Your task to perform on an android device: check battery use Image 0: 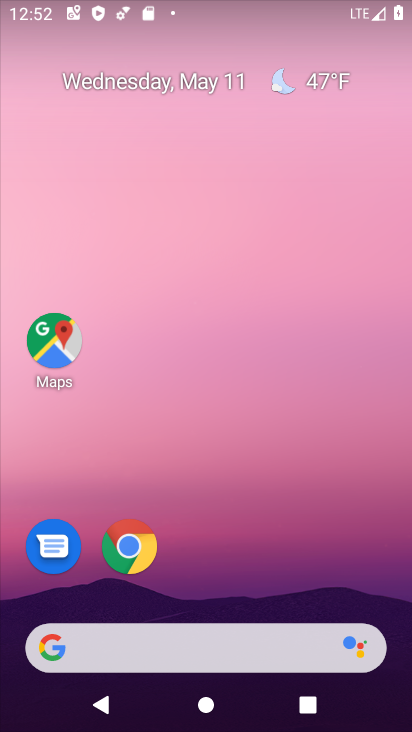
Step 0: drag from (224, 595) to (362, 4)
Your task to perform on an android device: check battery use Image 1: 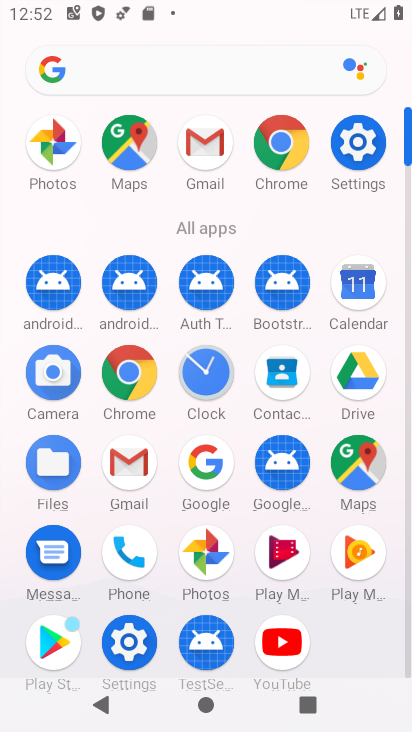
Step 1: click (120, 640)
Your task to perform on an android device: check battery use Image 2: 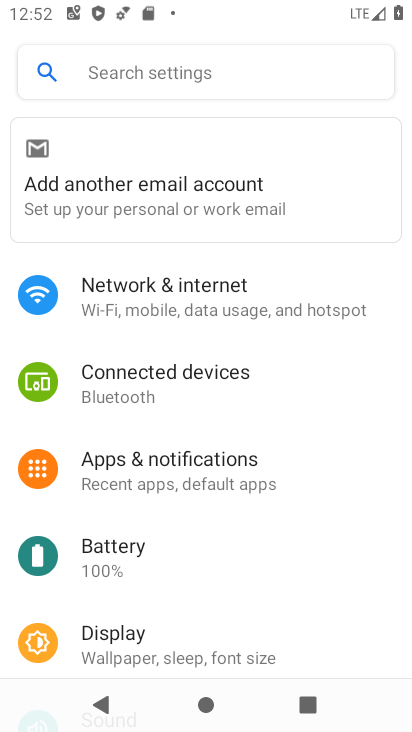
Step 2: click (185, 564)
Your task to perform on an android device: check battery use Image 3: 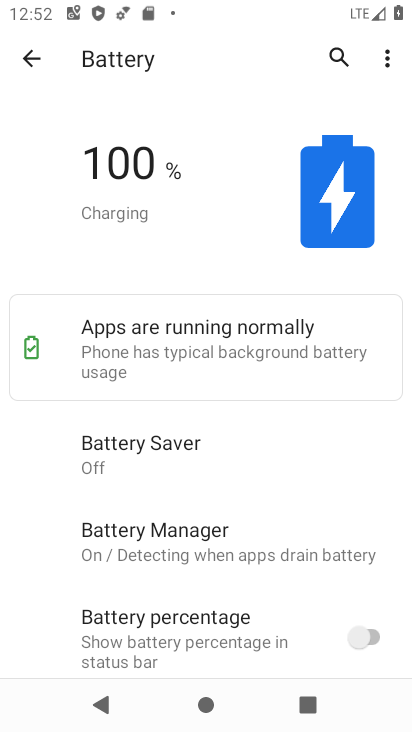
Step 3: drag from (390, 62) to (378, 109)
Your task to perform on an android device: check battery use Image 4: 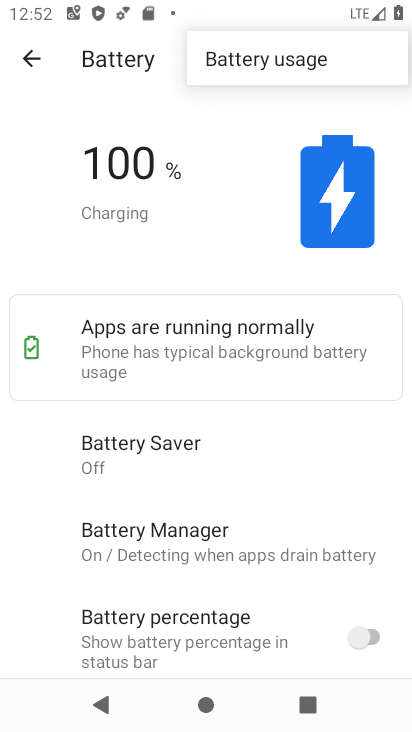
Step 4: click (390, 60)
Your task to perform on an android device: check battery use Image 5: 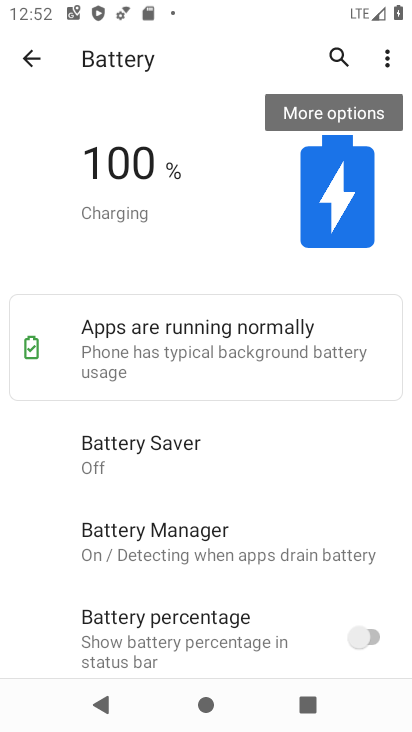
Step 5: click (393, 56)
Your task to perform on an android device: check battery use Image 6: 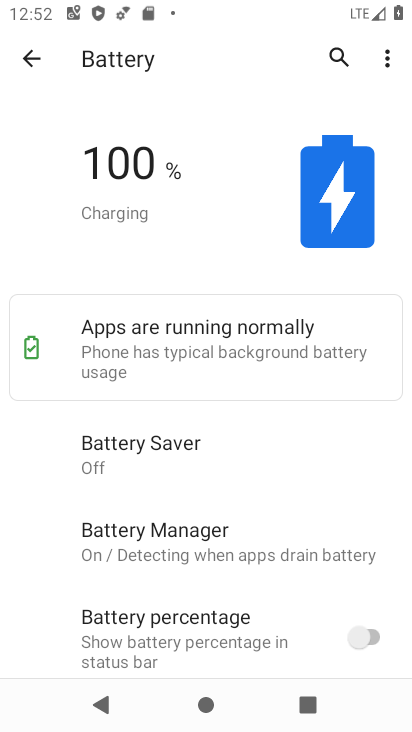
Step 6: click (361, 121)
Your task to perform on an android device: check battery use Image 7: 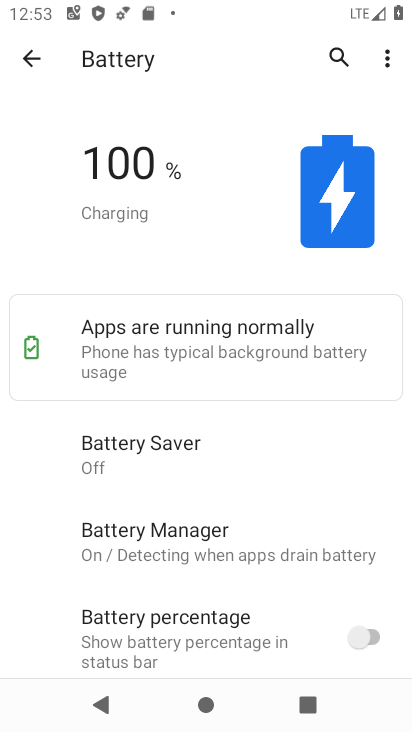
Step 7: click (387, 63)
Your task to perform on an android device: check battery use Image 8: 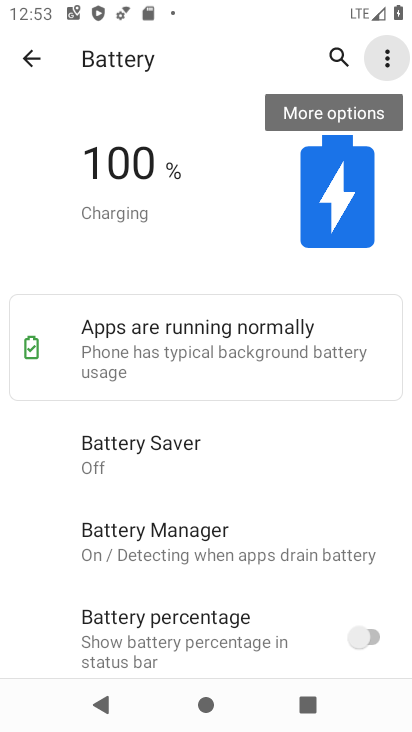
Step 8: click (390, 39)
Your task to perform on an android device: check battery use Image 9: 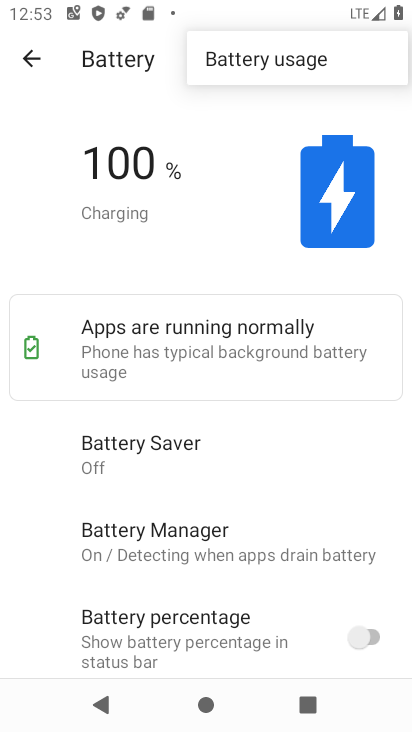
Step 9: click (376, 58)
Your task to perform on an android device: check battery use Image 10: 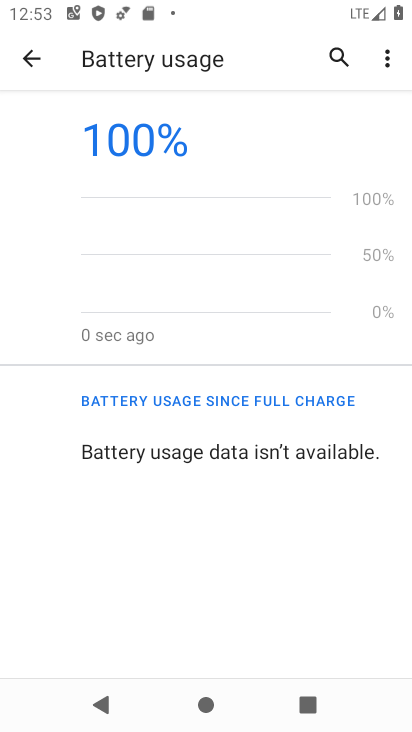
Step 10: task complete